Your task to perform on an android device: Go to Google maps Image 0: 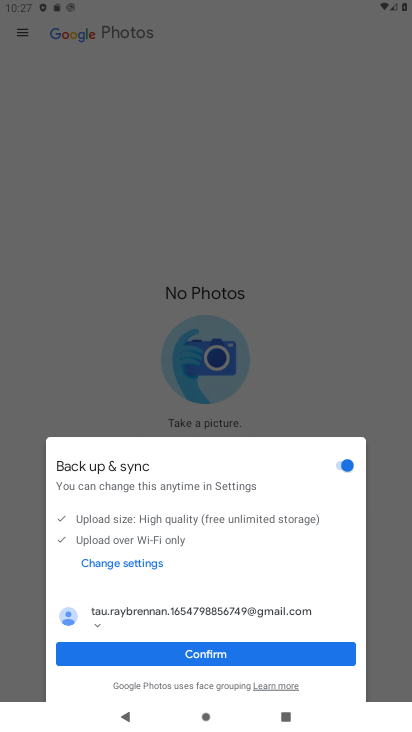
Step 0: press home button
Your task to perform on an android device: Go to Google maps Image 1: 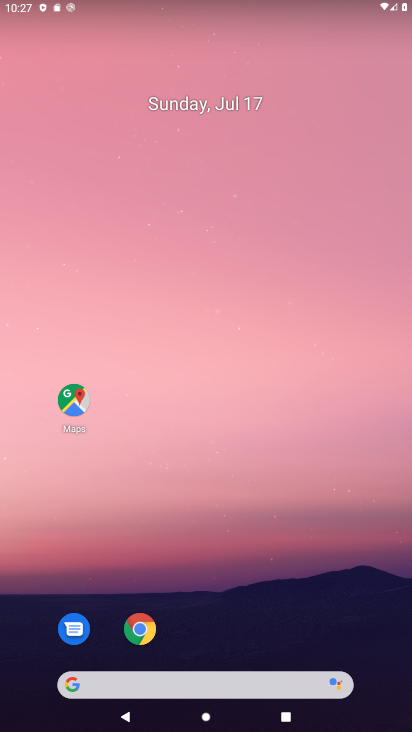
Step 1: drag from (207, 658) to (188, 104)
Your task to perform on an android device: Go to Google maps Image 2: 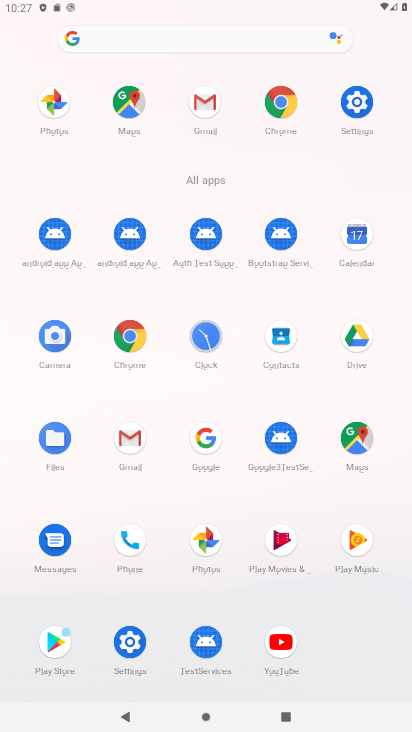
Step 2: click (356, 429)
Your task to perform on an android device: Go to Google maps Image 3: 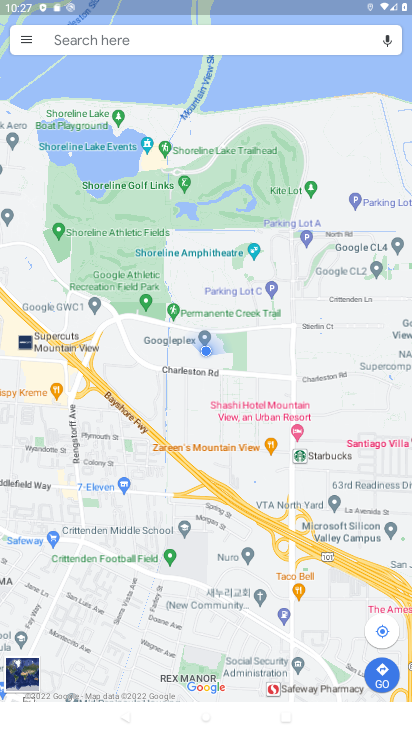
Step 3: task complete